Your task to perform on an android device: see sites visited before in the chrome app Image 0: 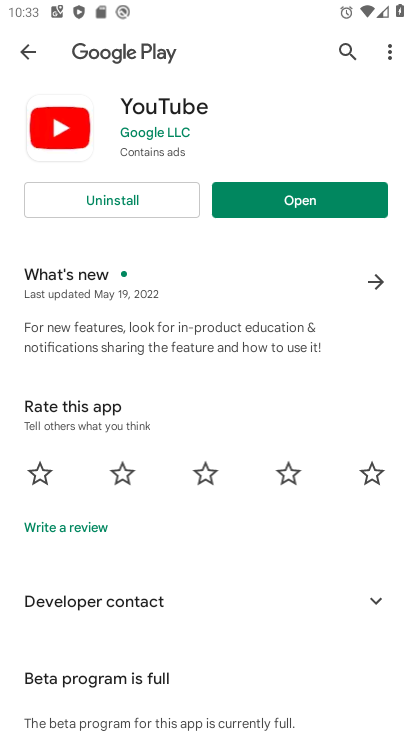
Step 0: press home button
Your task to perform on an android device: see sites visited before in the chrome app Image 1: 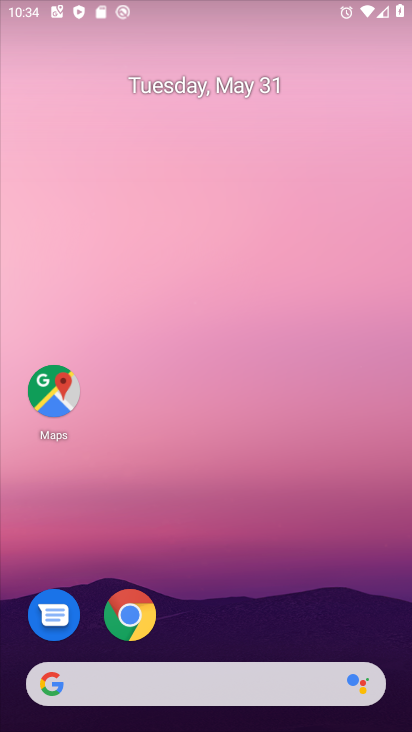
Step 1: drag from (305, 600) to (319, 13)
Your task to perform on an android device: see sites visited before in the chrome app Image 2: 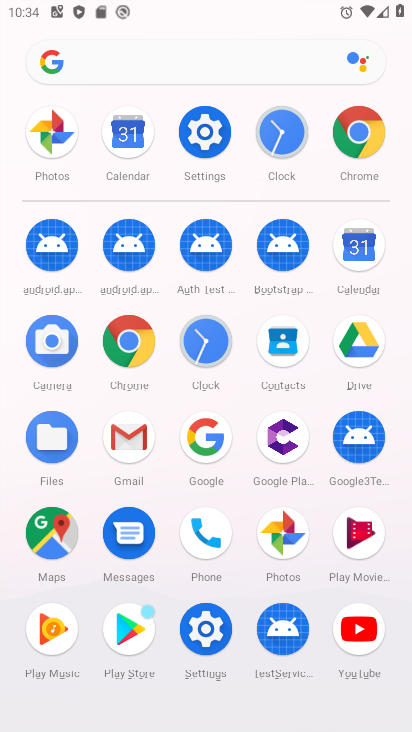
Step 2: click (366, 137)
Your task to perform on an android device: see sites visited before in the chrome app Image 3: 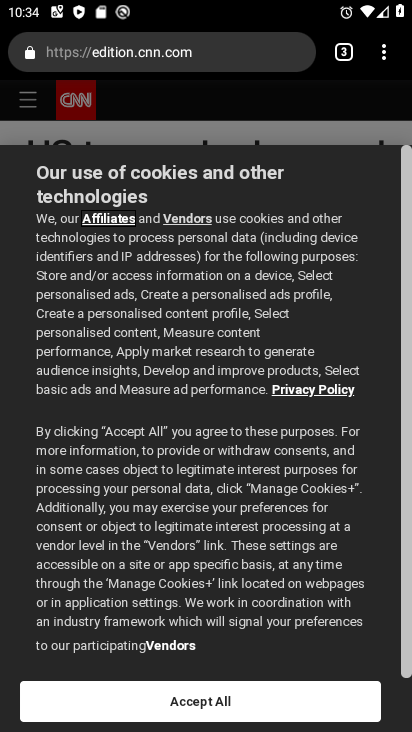
Step 3: task complete